Your task to perform on an android device: Toggle the flashlight Image 0: 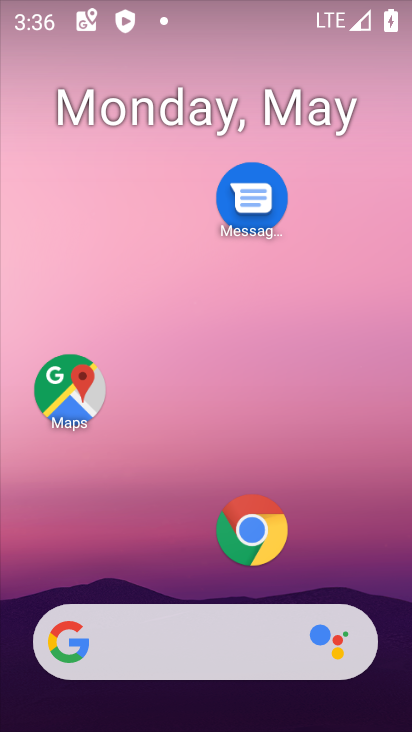
Step 0: drag from (172, 611) to (276, 74)
Your task to perform on an android device: Toggle the flashlight Image 1: 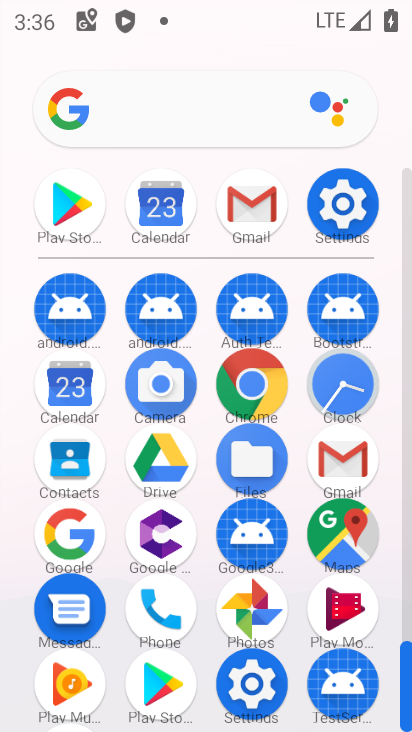
Step 1: click (330, 210)
Your task to perform on an android device: Toggle the flashlight Image 2: 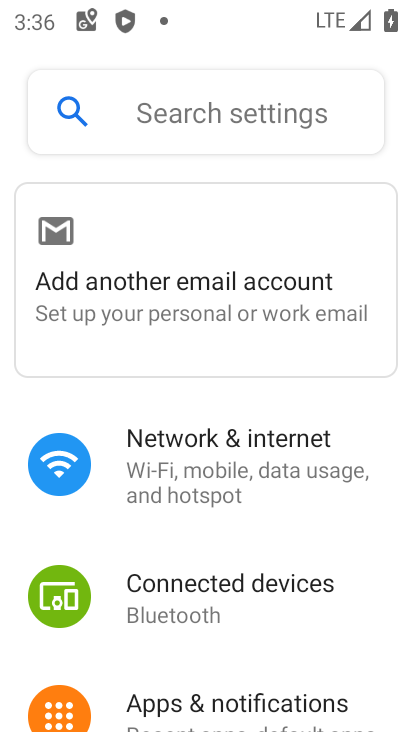
Step 2: click (202, 107)
Your task to perform on an android device: Toggle the flashlight Image 3: 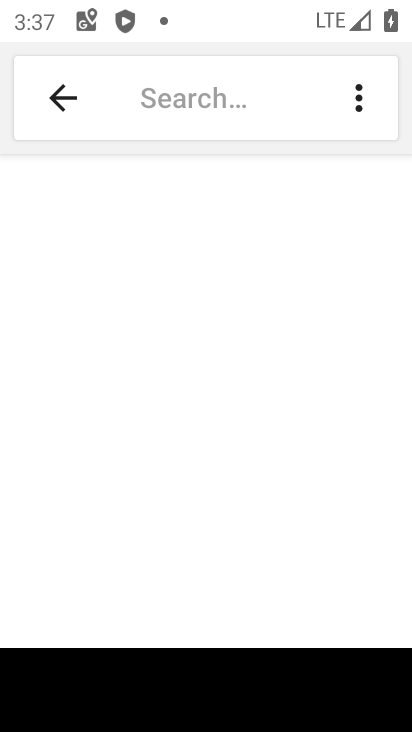
Step 3: type "flashlight"
Your task to perform on an android device: Toggle the flashlight Image 4: 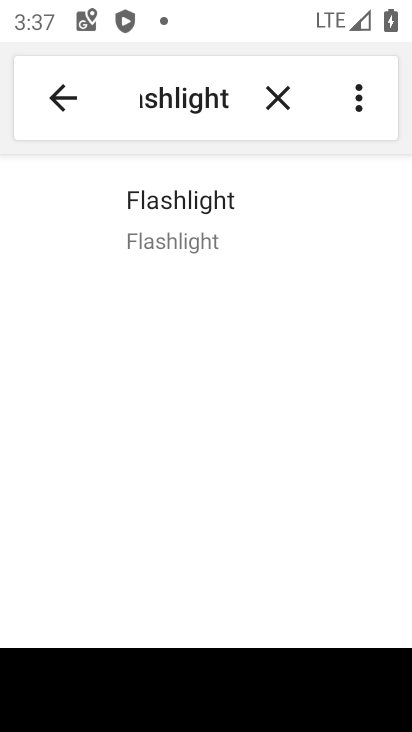
Step 4: click (148, 231)
Your task to perform on an android device: Toggle the flashlight Image 5: 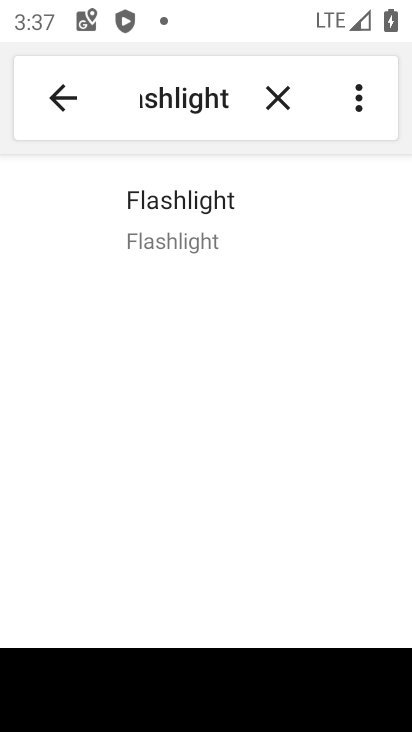
Step 5: click (188, 233)
Your task to perform on an android device: Toggle the flashlight Image 6: 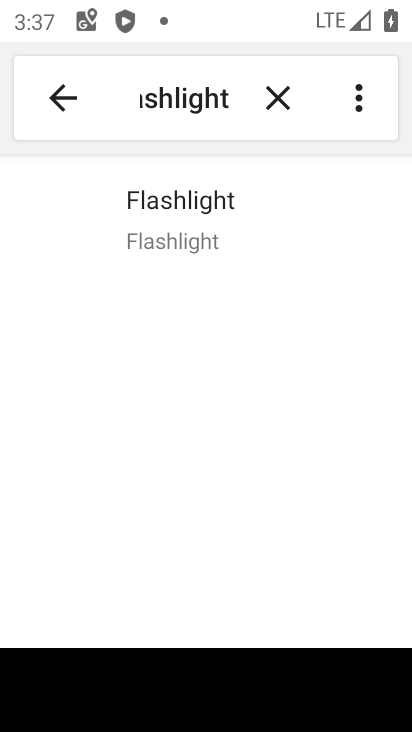
Step 6: task complete